Your task to perform on an android device: toggle data saver in the chrome app Image 0: 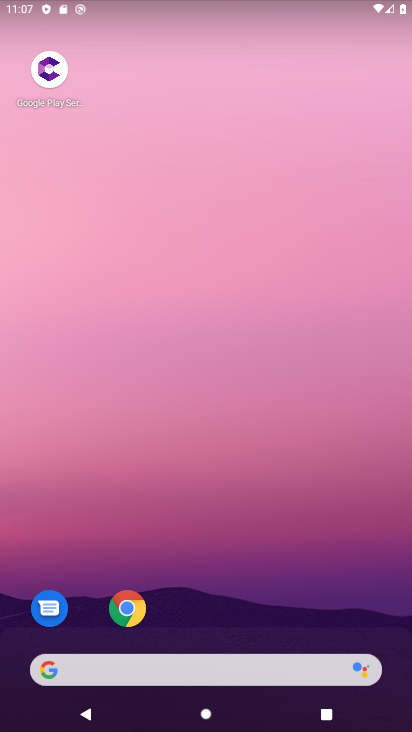
Step 0: drag from (200, 615) to (170, 76)
Your task to perform on an android device: toggle data saver in the chrome app Image 1: 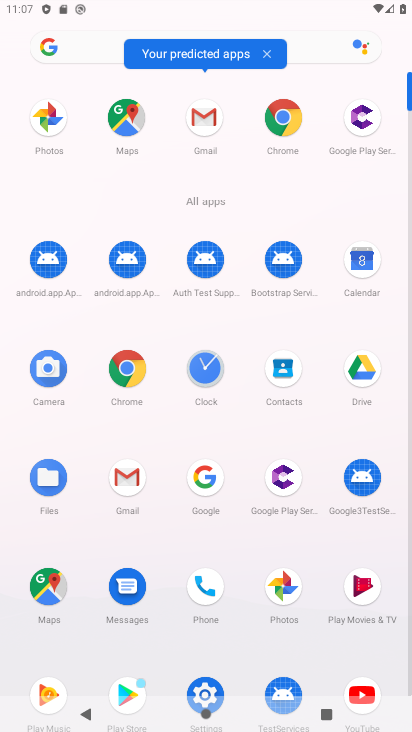
Step 1: click (279, 141)
Your task to perform on an android device: toggle data saver in the chrome app Image 2: 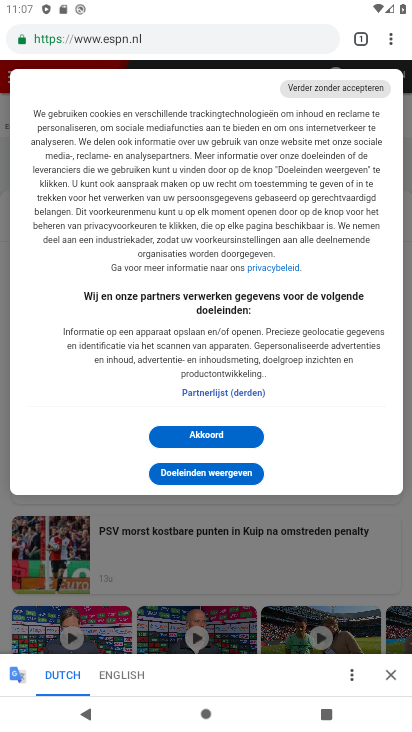
Step 2: click (234, 475)
Your task to perform on an android device: toggle data saver in the chrome app Image 3: 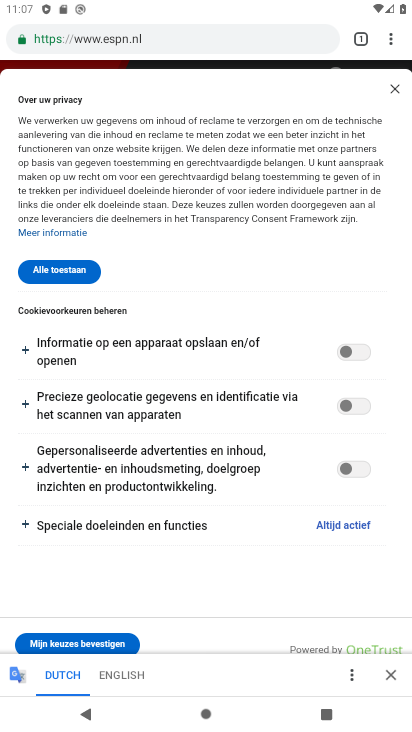
Step 3: click (234, 475)
Your task to perform on an android device: toggle data saver in the chrome app Image 4: 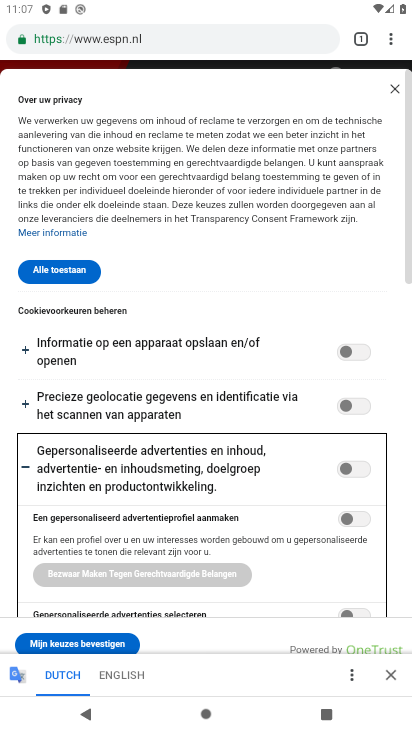
Step 4: press home button
Your task to perform on an android device: toggle data saver in the chrome app Image 5: 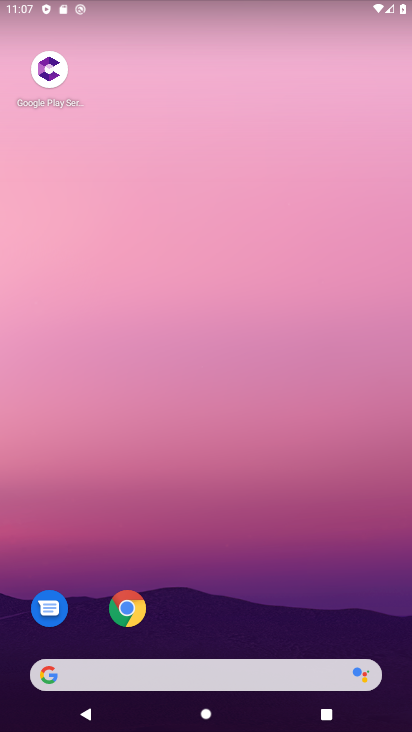
Step 5: click (141, 601)
Your task to perform on an android device: toggle data saver in the chrome app Image 6: 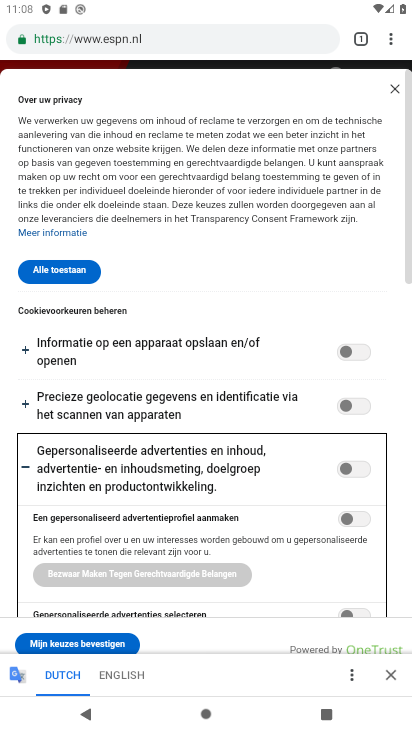
Step 6: click (386, 49)
Your task to perform on an android device: toggle data saver in the chrome app Image 7: 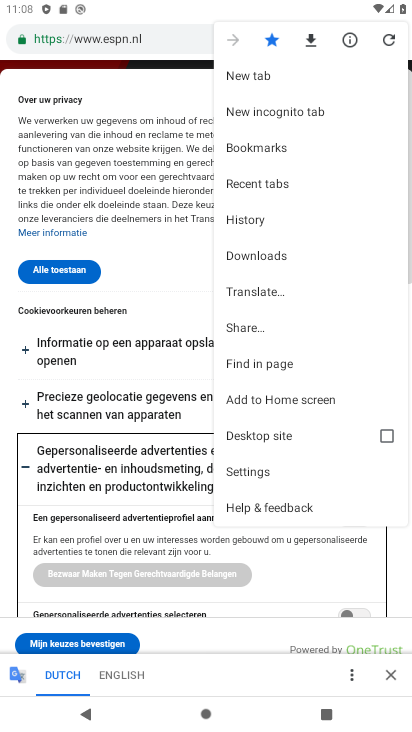
Step 7: click (264, 465)
Your task to perform on an android device: toggle data saver in the chrome app Image 8: 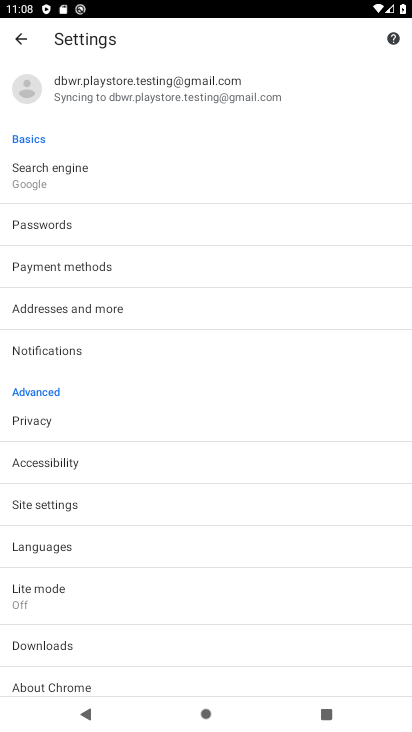
Step 8: click (194, 595)
Your task to perform on an android device: toggle data saver in the chrome app Image 9: 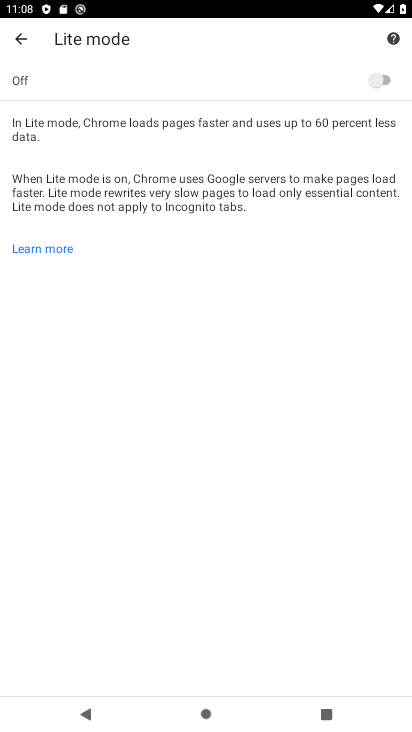
Step 9: click (356, 90)
Your task to perform on an android device: toggle data saver in the chrome app Image 10: 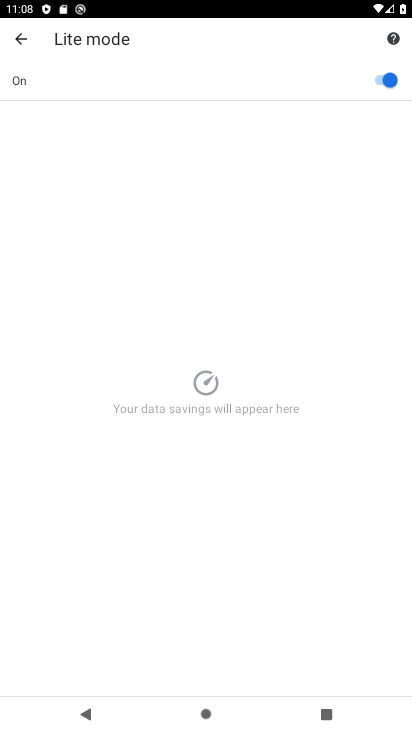
Step 10: task complete